Your task to perform on an android device: check data usage Image 0: 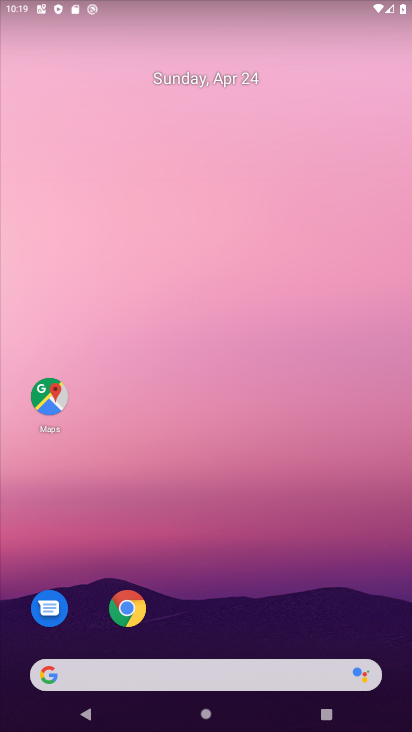
Step 0: drag from (280, 692) to (227, 136)
Your task to perform on an android device: check data usage Image 1: 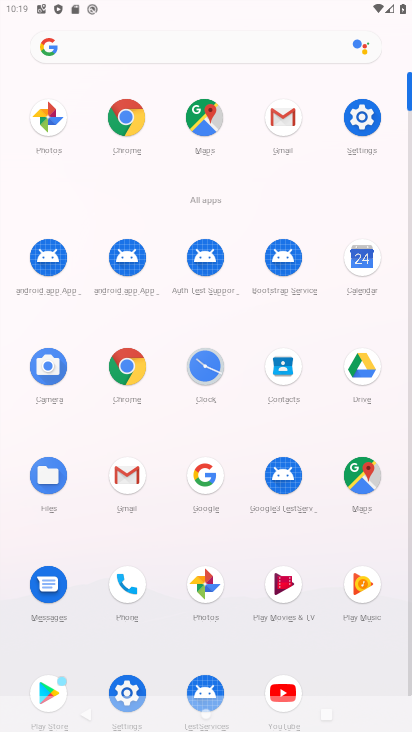
Step 1: click (350, 145)
Your task to perform on an android device: check data usage Image 2: 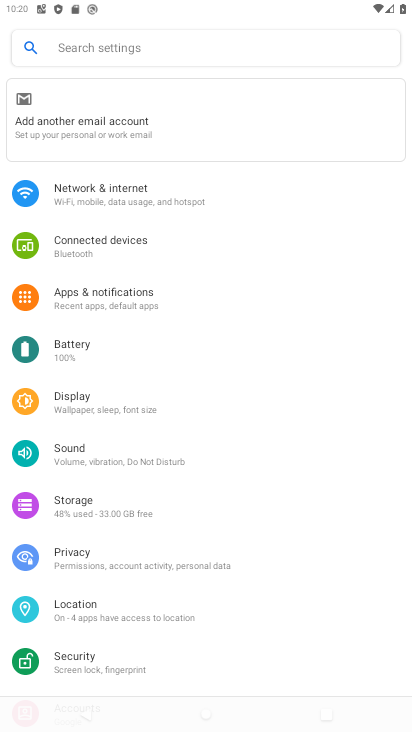
Step 2: click (154, 53)
Your task to perform on an android device: check data usage Image 3: 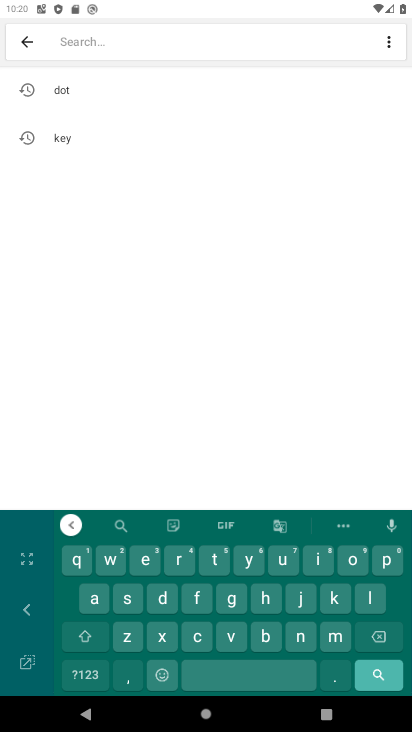
Step 3: click (163, 606)
Your task to perform on an android device: check data usage Image 4: 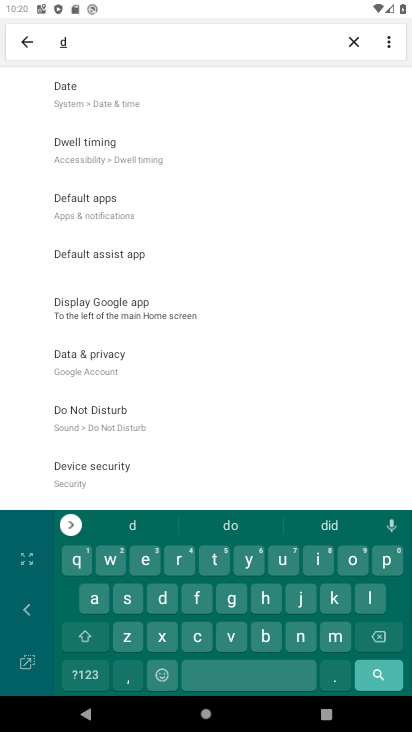
Step 4: click (90, 604)
Your task to perform on an android device: check data usage Image 5: 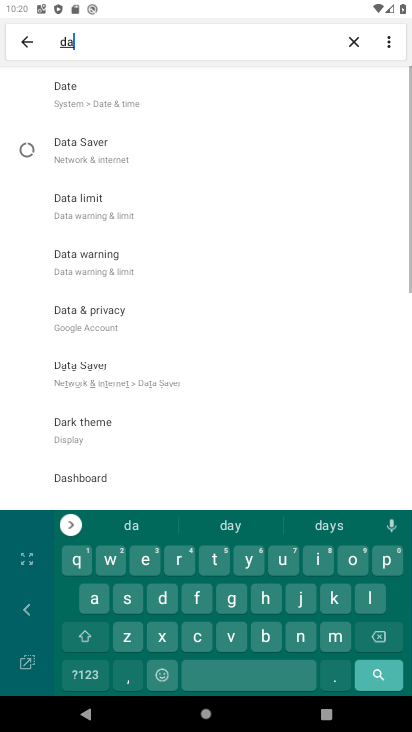
Step 5: click (212, 560)
Your task to perform on an android device: check data usage Image 6: 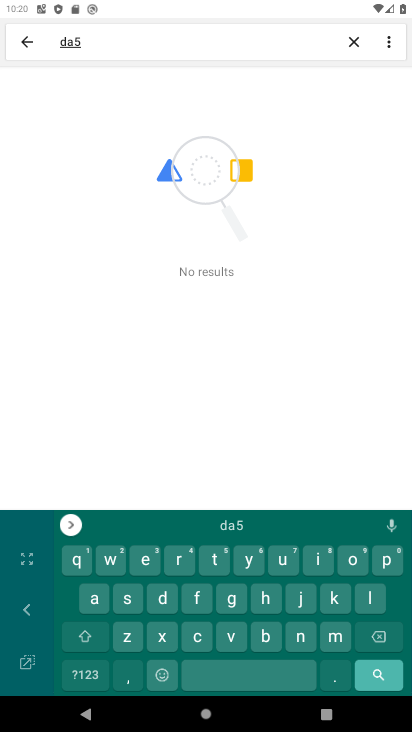
Step 6: click (87, 601)
Your task to perform on an android device: check data usage Image 7: 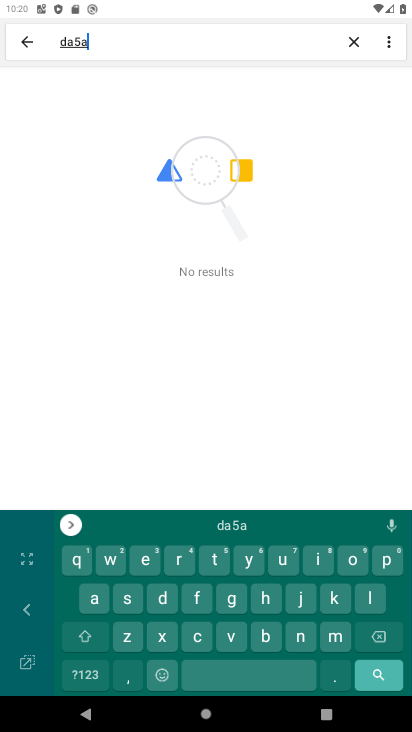
Step 7: click (390, 636)
Your task to perform on an android device: check data usage Image 8: 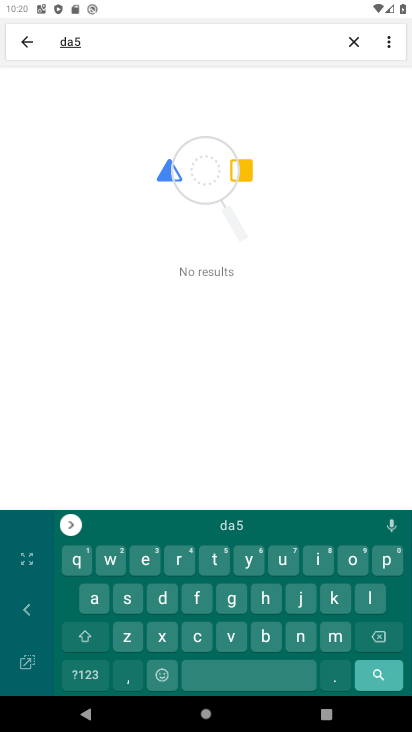
Step 8: drag from (367, 623) to (301, 550)
Your task to perform on an android device: check data usage Image 9: 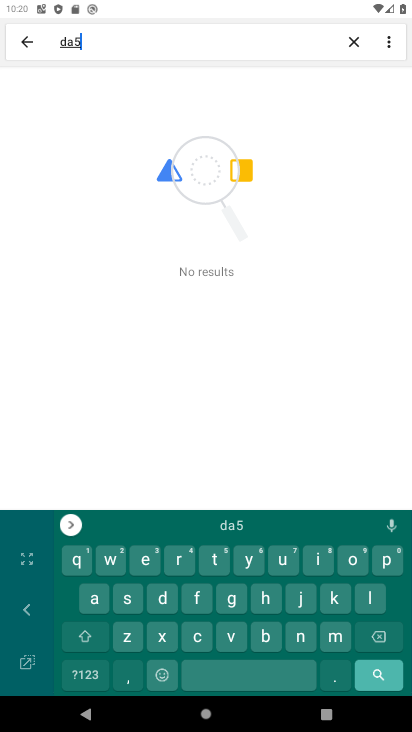
Step 9: click (379, 639)
Your task to perform on an android device: check data usage Image 10: 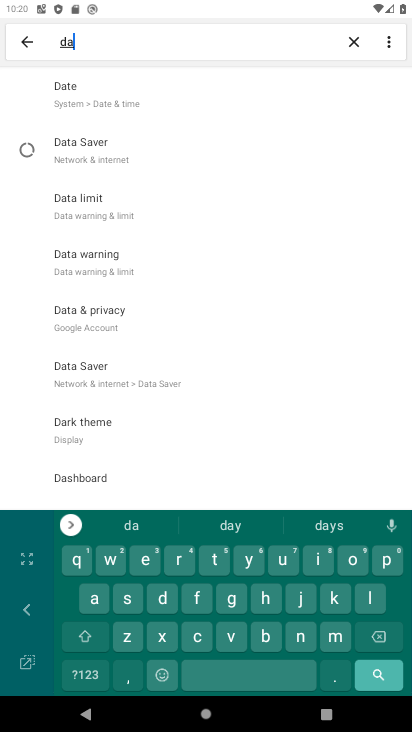
Step 10: drag from (138, 427) to (144, 231)
Your task to perform on an android device: check data usage Image 11: 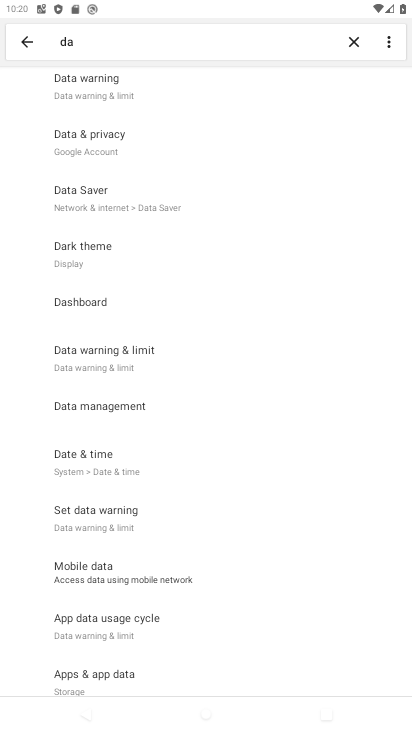
Step 11: click (119, 589)
Your task to perform on an android device: check data usage Image 12: 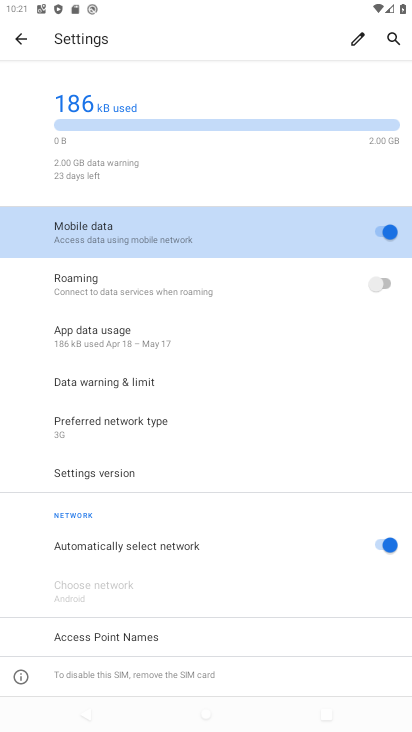
Step 12: task complete